Your task to perform on an android device: Search for pizza restaurants on Maps Image 0: 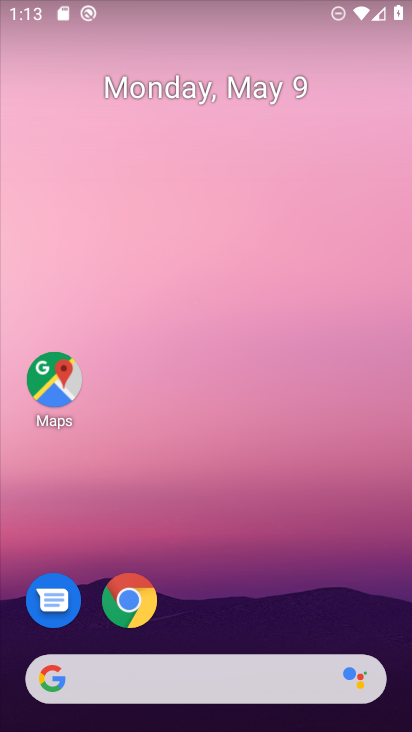
Step 0: drag from (192, 670) to (276, 258)
Your task to perform on an android device: Search for pizza restaurants on Maps Image 1: 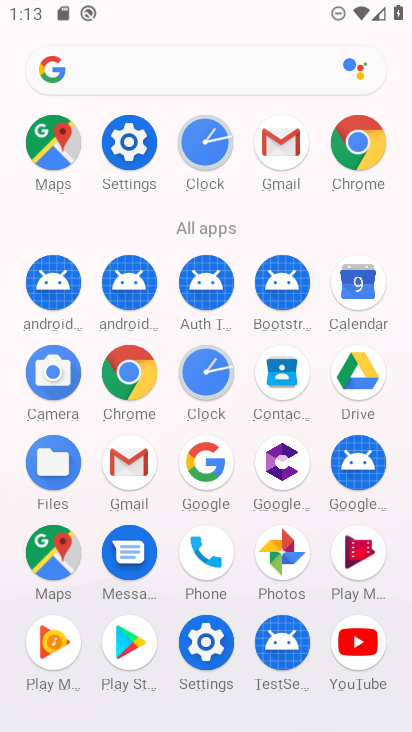
Step 1: click (41, 159)
Your task to perform on an android device: Search for pizza restaurants on Maps Image 2: 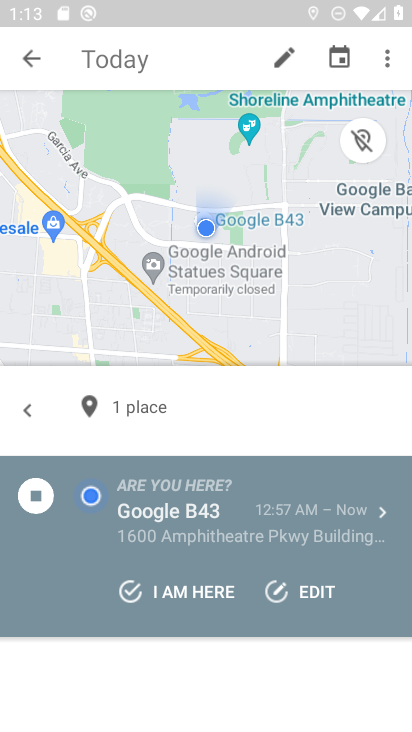
Step 2: click (35, 65)
Your task to perform on an android device: Search for pizza restaurants on Maps Image 3: 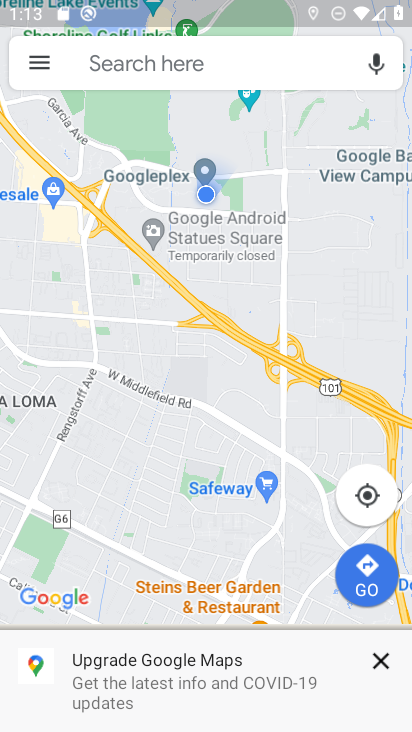
Step 3: click (133, 56)
Your task to perform on an android device: Search for pizza restaurants on Maps Image 4: 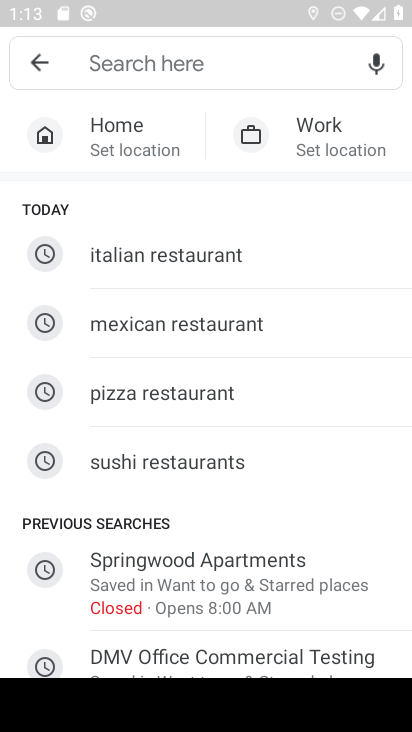
Step 4: click (191, 389)
Your task to perform on an android device: Search for pizza restaurants on Maps Image 5: 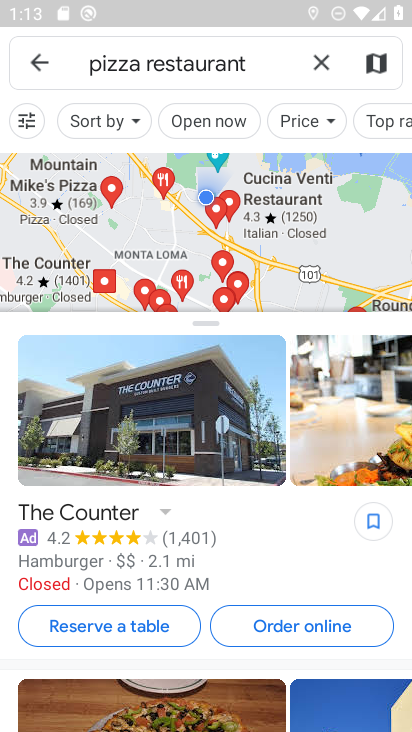
Step 5: task complete